Your task to perform on an android device: Open Yahoo.com Image 0: 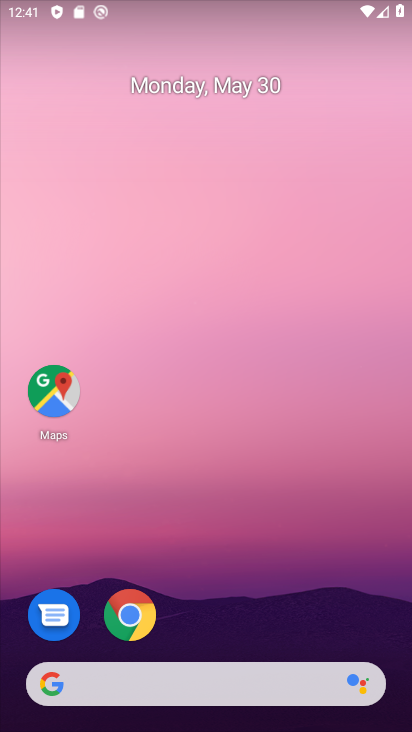
Step 0: click (136, 605)
Your task to perform on an android device: Open Yahoo.com Image 1: 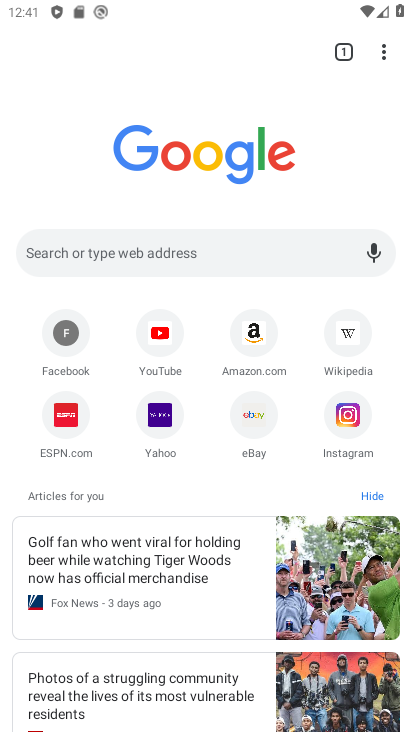
Step 1: click (151, 432)
Your task to perform on an android device: Open Yahoo.com Image 2: 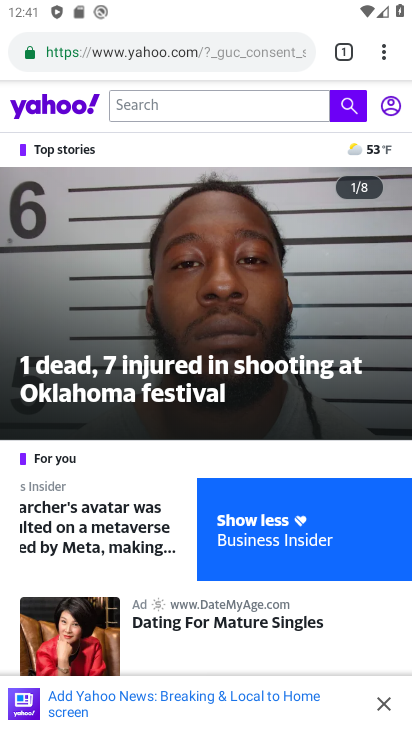
Step 2: task complete